Your task to perform on an android device: turn on wifi Image 0: 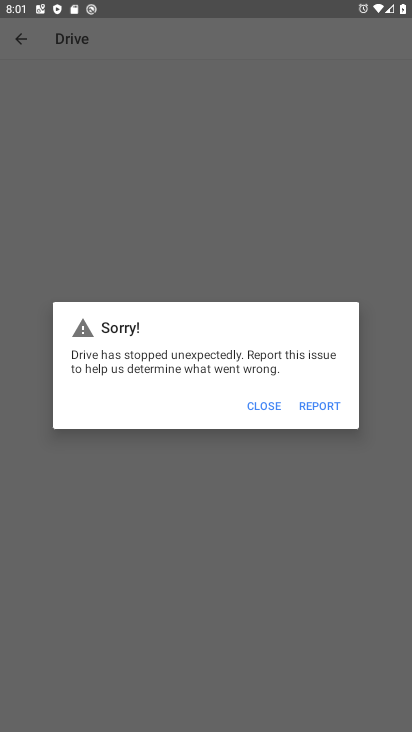
Step 0: press home button
Your task to perform on an android device: turn on wifi Image 1: 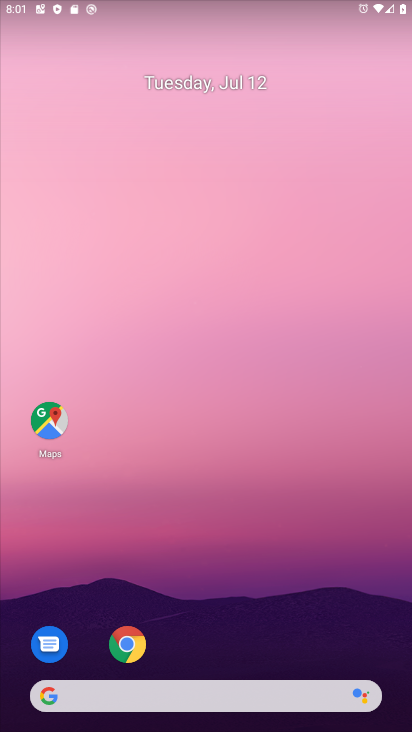
Step 1: drag from (196, 668) to (255, 189)
Your task to perform on an android device: turn on wifi Image 2: 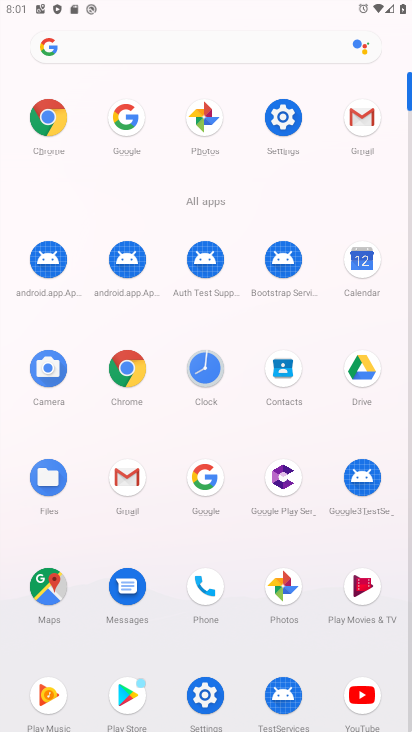
Step 2: click (285, 112)
Your task to perform on an android device: turn on wifi Image 3: 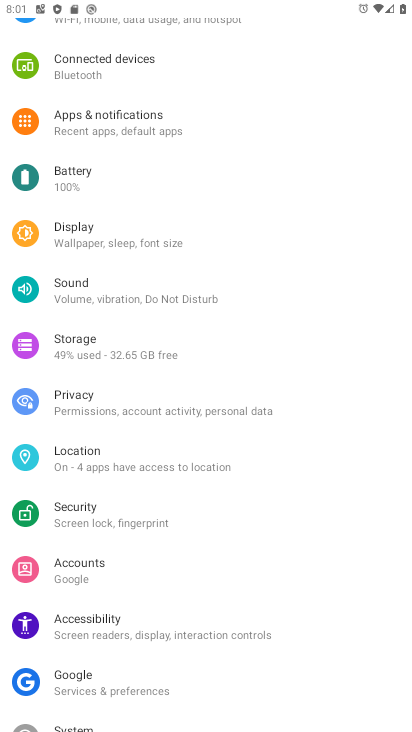
Step 3: drag from (97, 43) to (111, 336)
Your task to perform on an android device: turn on wifi Image 4: 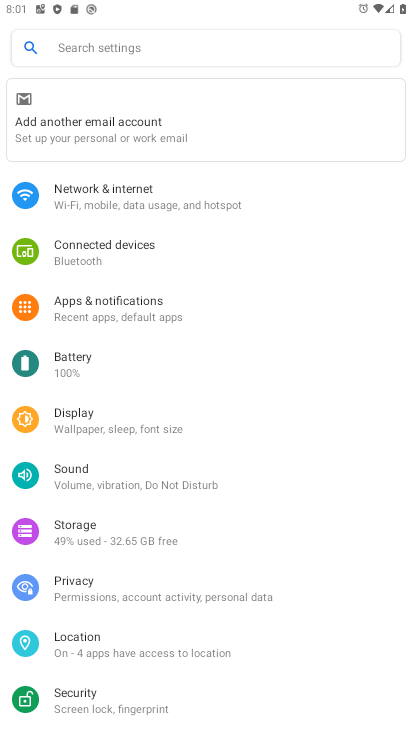
Step 4: click (69, 205)
Your task to perform on an android device: turn on wifi Image 5: 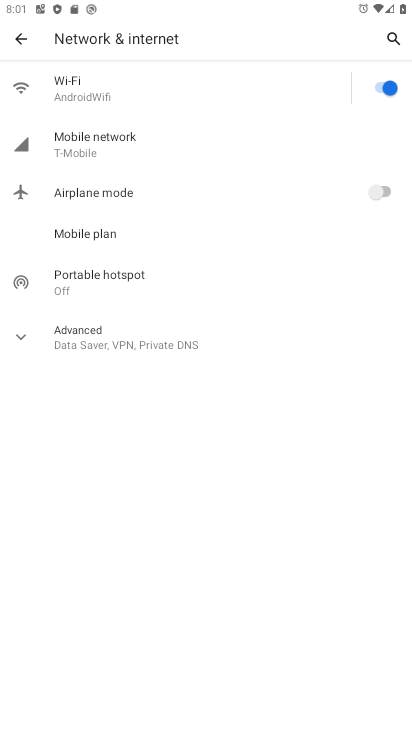
Step 5: task complete